Your task to perform on an android device: Is it going to rain tomorrow? Image 0: 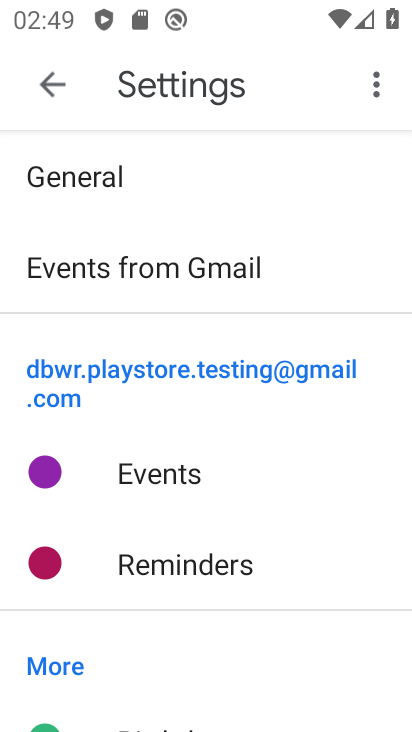
Step 0: press back button
Your task to perform on an android device: Is it going to rain tomorrow? Image 1: 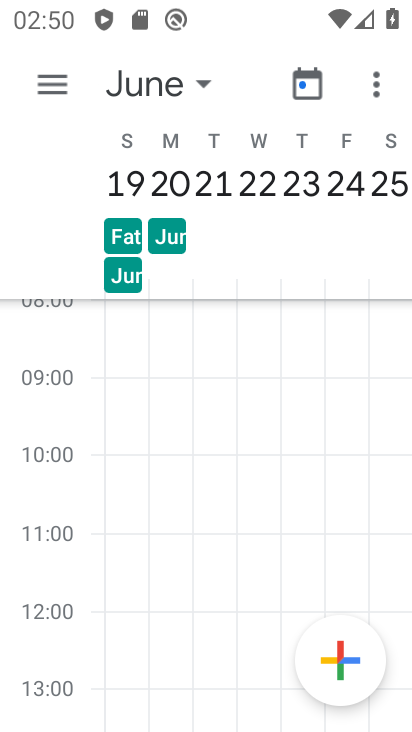
Step 1: press back button
Your task to perform on an android device: Is it going to rain tomorrow? Image 2: 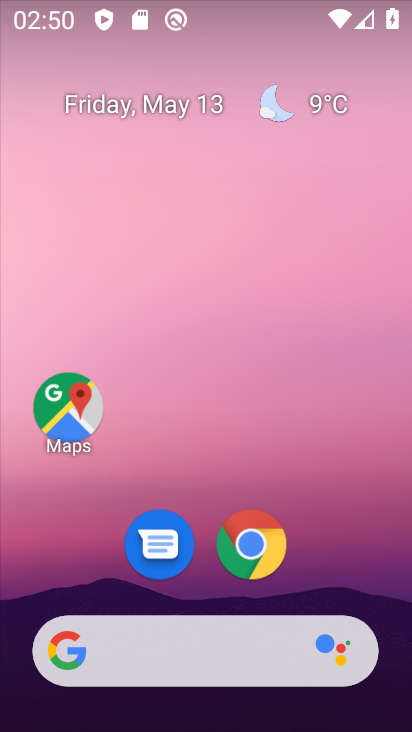
Step 2: drag from (360, 549) to (271, 0)
Your task to perform on an android device: Is it going to rain tomorrow? Image 3: 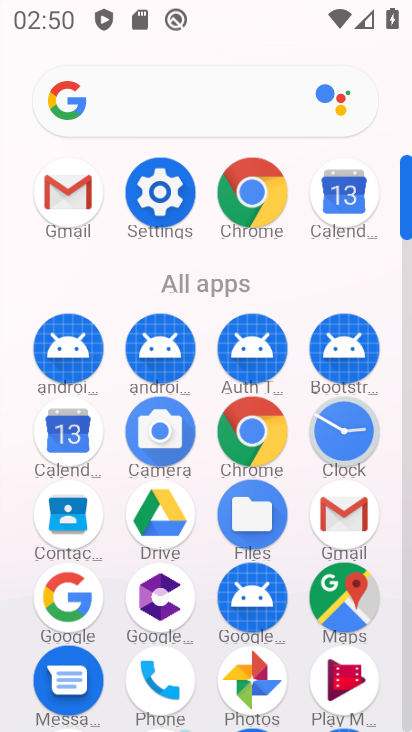
Step 3: drag from (25, 528) to (17, 257)
Your task to perform on an android device: Is it going to rain tomorrow? Image 4: 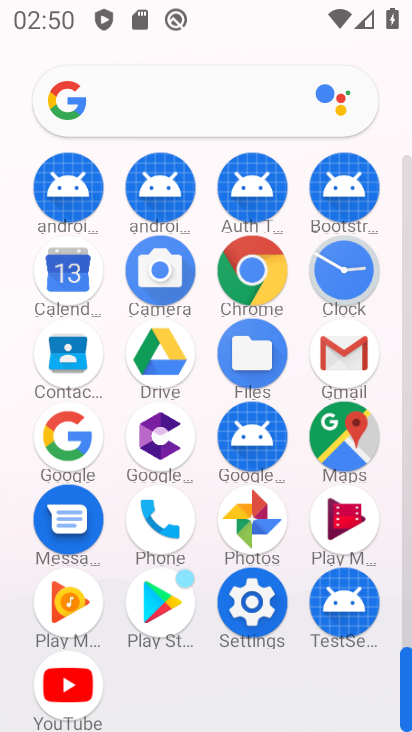
Step 4: drag from (21, 611) to (21, 313)
Your task to perform on an android device: Is it going to rain tomorrow? Image 5: 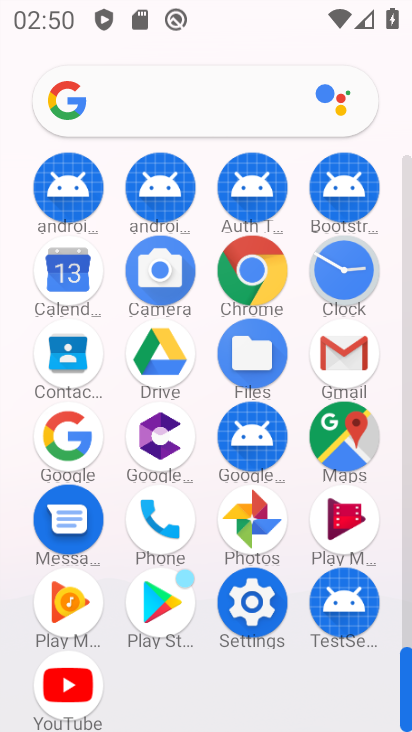
Step 5: click (251, 270)
Your task to perform on an android device: Is it going to rain tomorrow? Image 6: 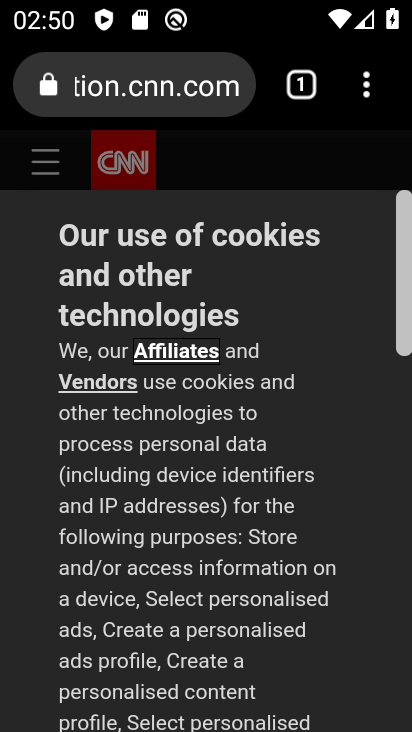
Step 6: click (142, 78)
Your task to perform on an android device: Is it going to rain tomorrow? Image 7: 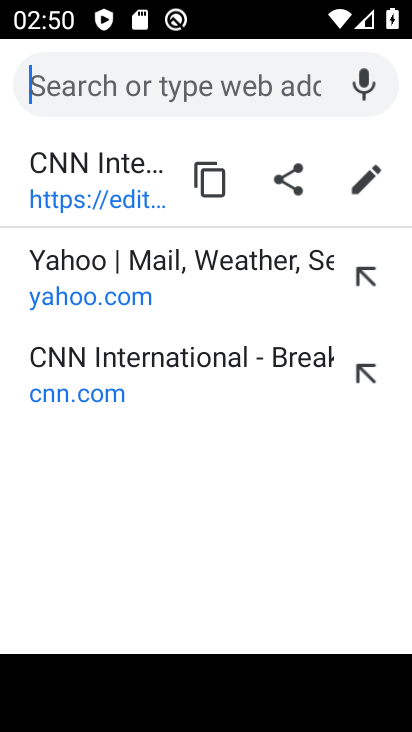
Step 7: type "Is it going to rain tomorrow?"
Your task to perform on an android device: Is it going to rain tomorrow? Image 8: 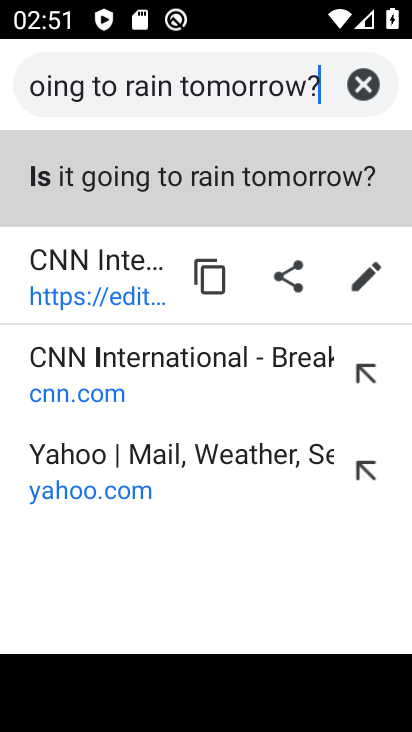
Step 8: type ""
Your task to perform on an android device: Is it going to rain tomorrow? Image 9: 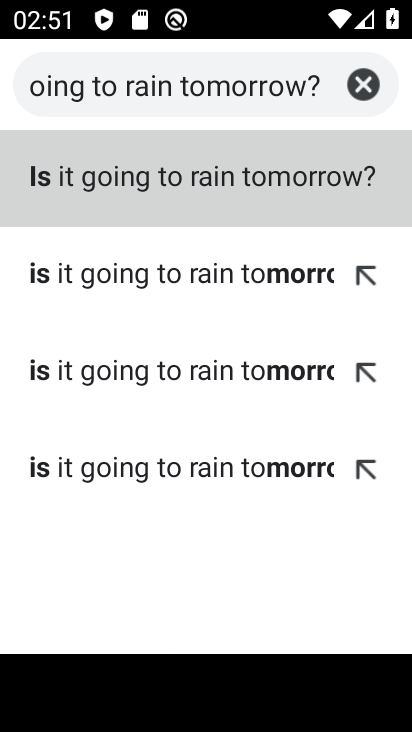
Step 9: click (165, 165)
Your task to perform on an android device: Is it going to rain tomorrow? Image 10: 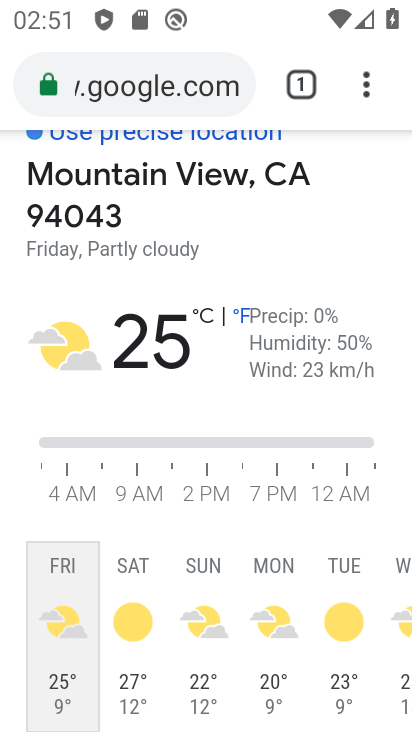
Step 10: task complete